Your task to perform on an android device: delete the emails in spam in the gmail app Image 0: 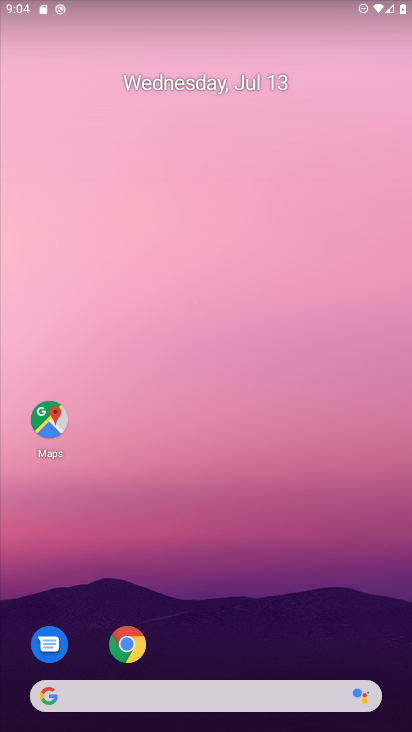
Step 0: drag from (339, 659) to (314, 141)
Your task to perform on an android device: delete the emails in spam in the gmail app Image 1: 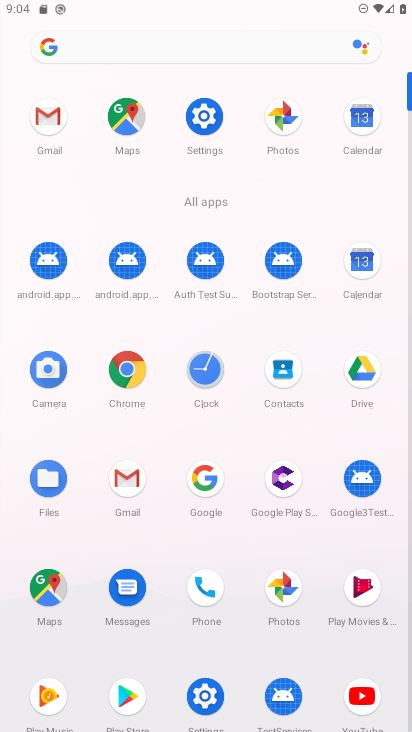
Step 1: click (114, 485)
Your task to perform on an android device: delete the emails in spam in the gmail app Image 2: 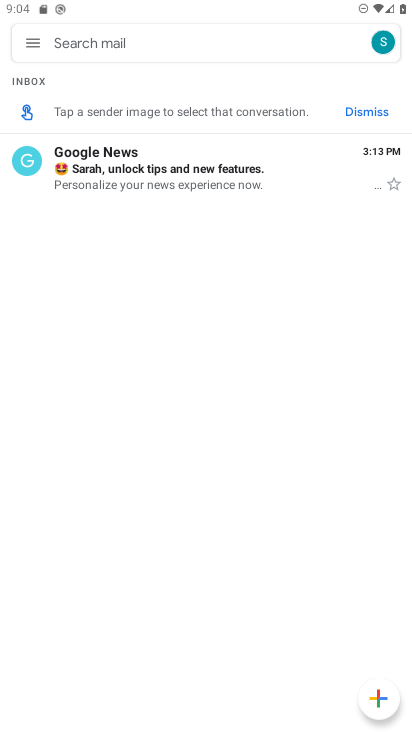
Step 2: click (27, 39)
Your task to perform on an android device: delete the emails in spam in the gmail app Image 3: 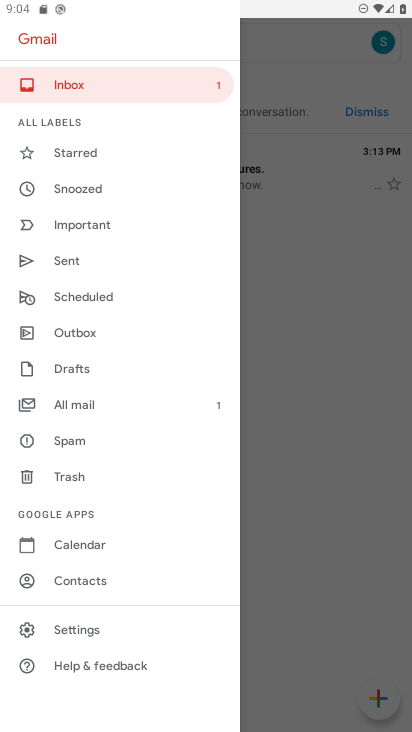
Step 3: click (81, 438)
Your task to perform on an android device: delete the emails in spam in the gmail app Image 4: 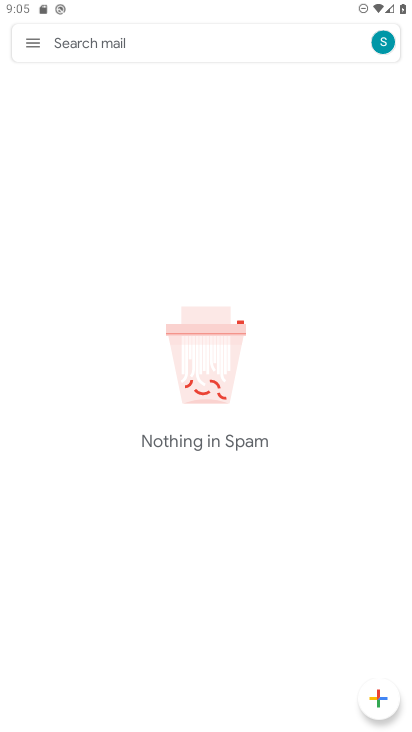
Step 4: task complete